Your task to perform on an android device: Open settings on Google Maps Image 0: 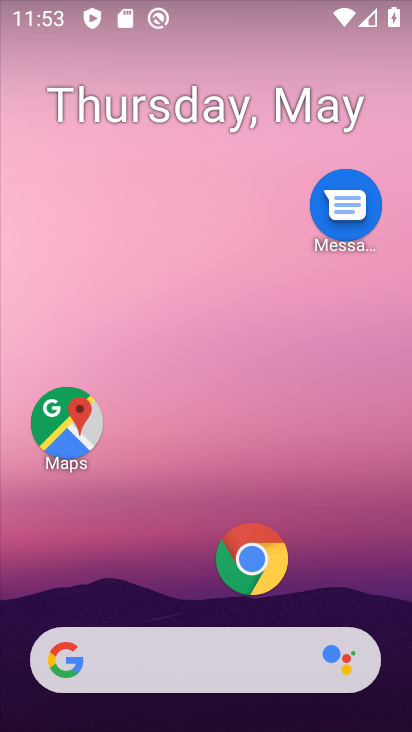
Step 0: drag from (184, 691) to (216, 153)
Your task to perform on an android device: Open settings on Google Maps Image 1: 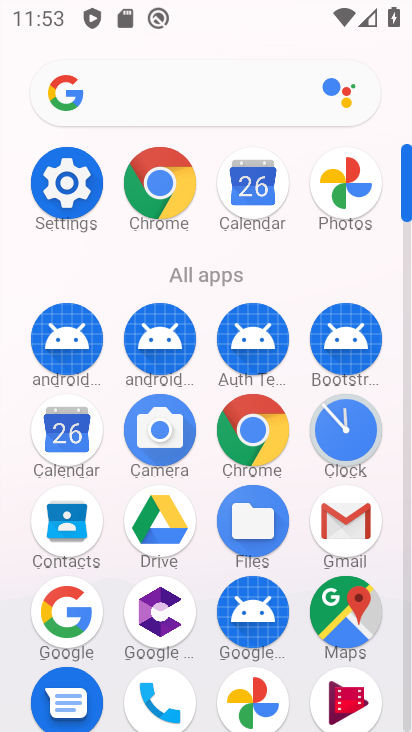
Step 1: drag from (189, 515) to (213, 202)
Your task to perform on an android device: Open settings on Google Maps Image 2: 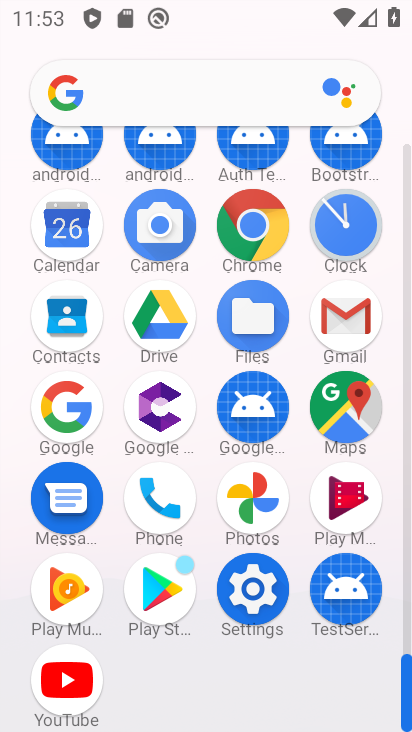
Step 2: click (337, 434)
Your task to perform on an android device: Open settings on Google Maps Image 3: 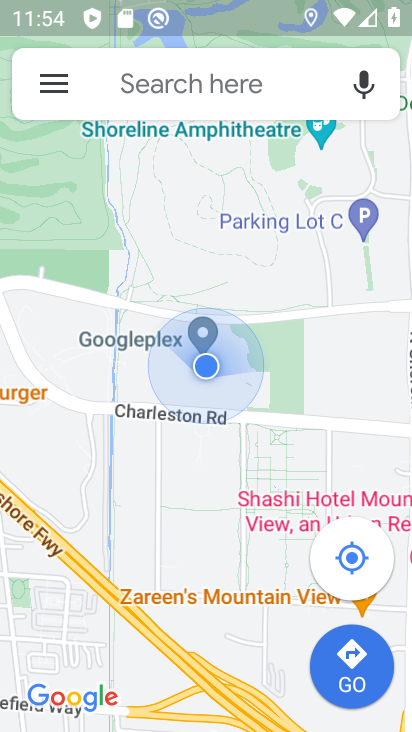
Step 3: click (72, 85)
Your task to perform on an android device: Open settings on Google Maps Image 4: 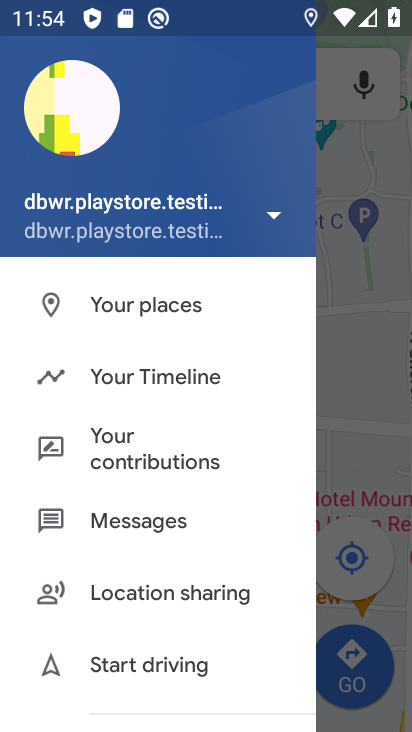
Step 4: drag from (132, 578) to (333, 4)
Your task to perform on an android device: Open settings on Google Maps Image 5: 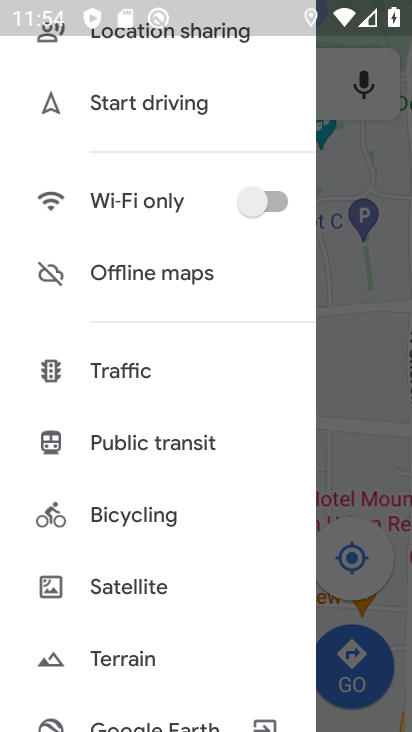
Step 5: drag from (136, 559) to (247, 68)
Your task to perform on an android device: Open settings on Google Maps Image 6: 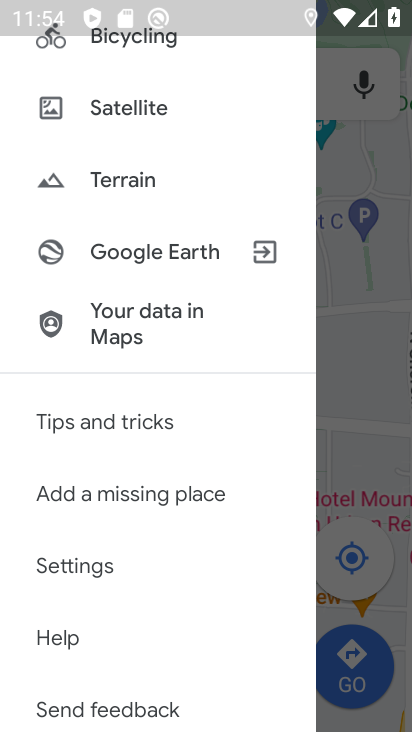
Step 6: click (85, 569)
Your task to perform on an android device: Open settings on Google Maps Image 7: 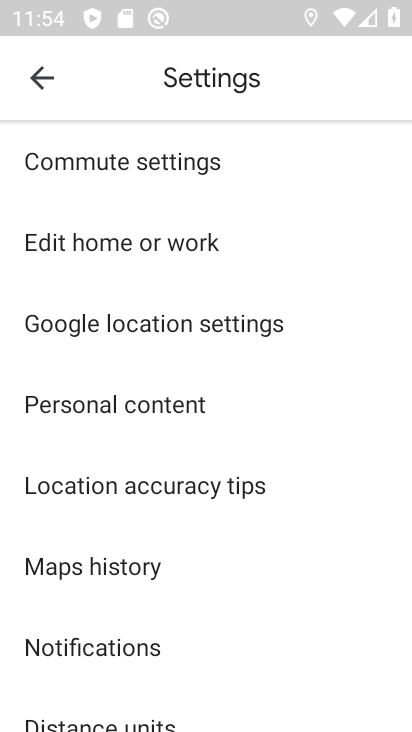
Step 7: task complete